Your task to perform on an android device: Open Wikipedia Image 0: 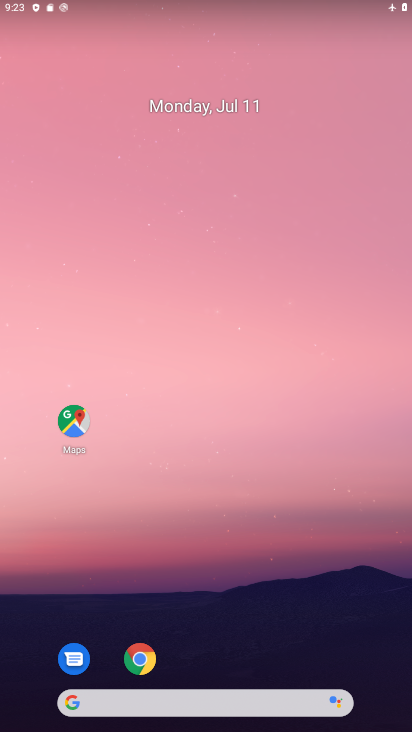
Step 0: click (134, 661)
Your task to perform on an android device: Open Wikipedia Image 1: 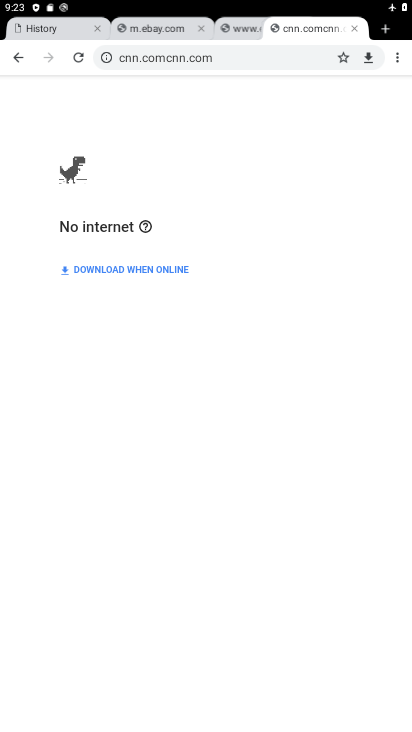
Step 1: click (384, 29)
Your task to perform on an android device: Open Wikipedia Image 2: 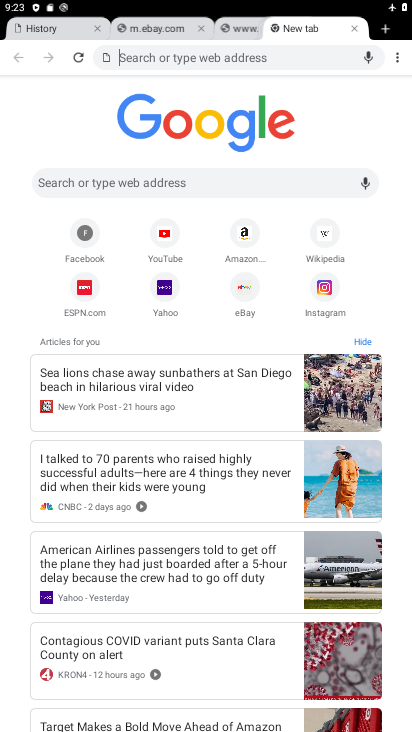
Step 2: click (313, 232)
Your task to perform on an android device: Open Wikipedia Image 3: 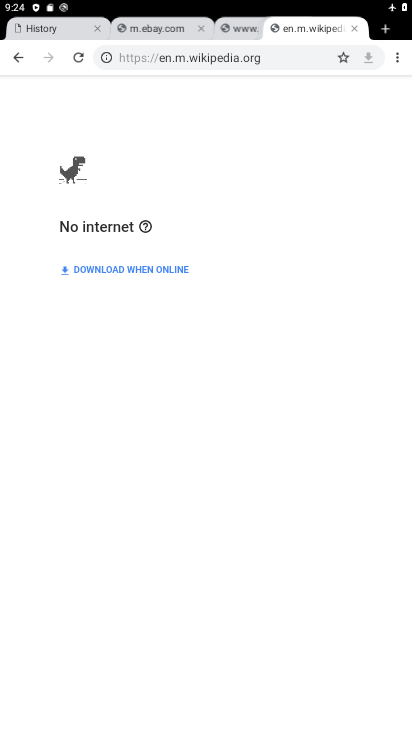
Step 3: task complete